Your task to perform on an android device: show emergency info Image 0: 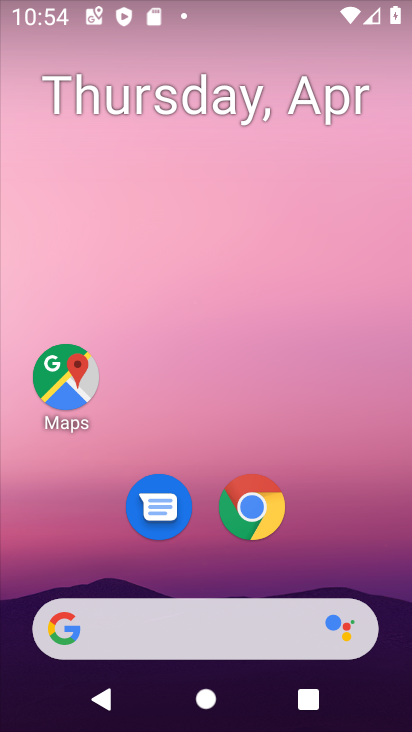
Step 0: drag from (162, 593) to (300, 58)
Your task to perform on an android device: show emergency info Image 1: 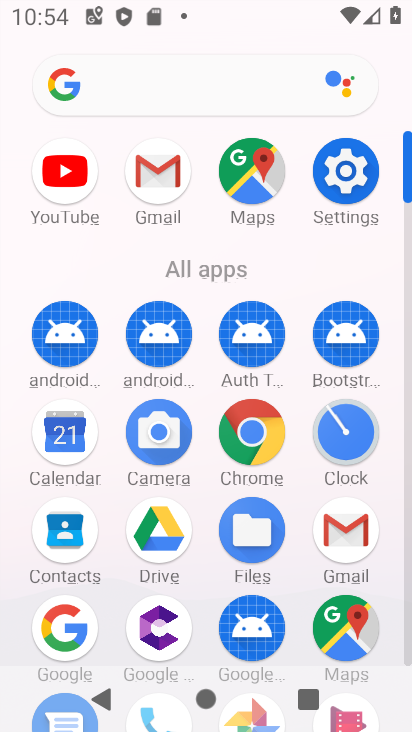
Step 1: click (349, 174)
Your task to perform on an android device: show emergency info Image 2: 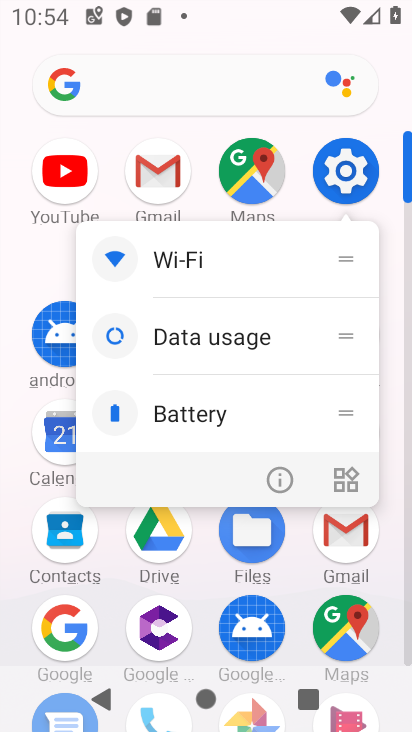
Step 2: click (336, 163)
Your task to perform on an android device: show emergency info Image 3: 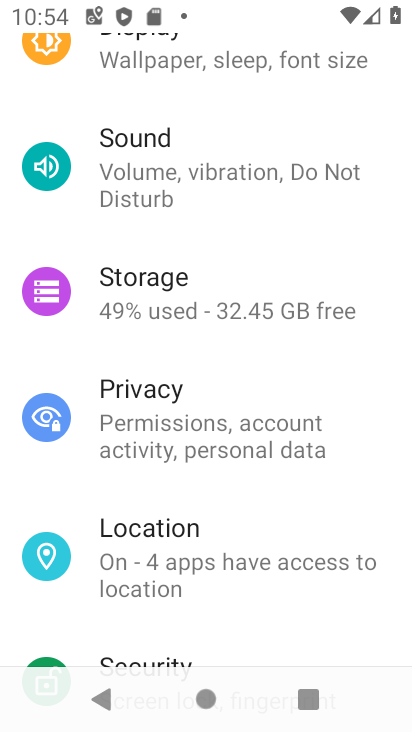
Step 3: drag from (153, 623) to (300, 126)
Your task to perform on an android device: show emergency info Image 4: 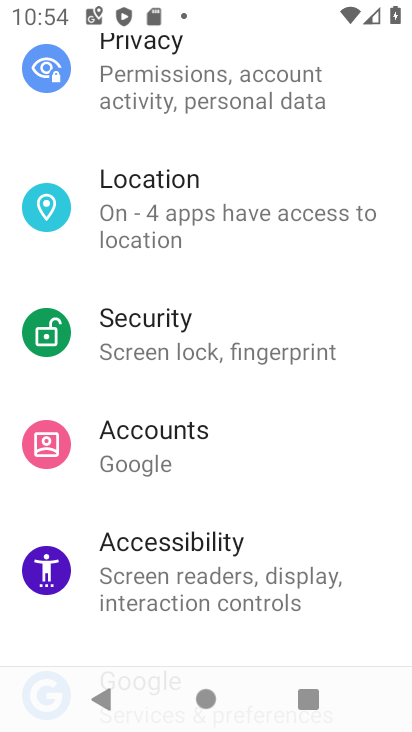
Step 4: drag from (141, 569) to (335, 107)
Your task to perform on an android device: show emergency info Image 5: 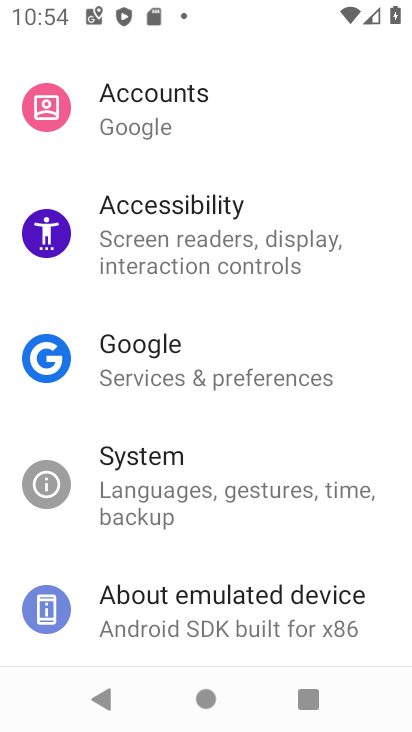
Step 5: drag from (153, 636) to (315, 67)
Your task to perform on an android device: show emergency info Image 6: 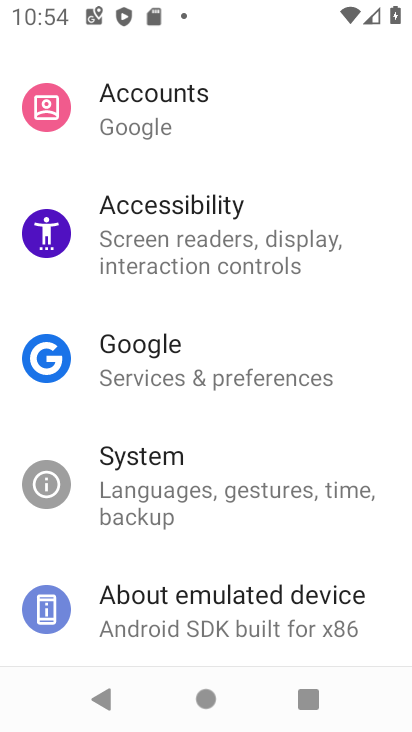
Step 6: click (255, 655)
Your task to perform on an android device: show emergency info Image 7: 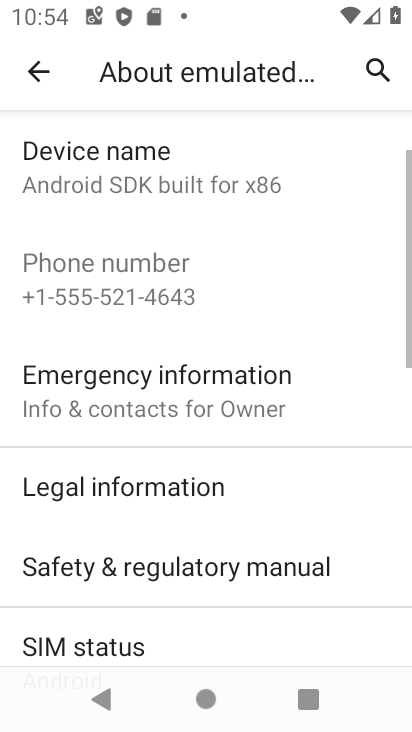
Step 7: click (122, 416)
Your task to perform on an android device: show emergency info Image 8: 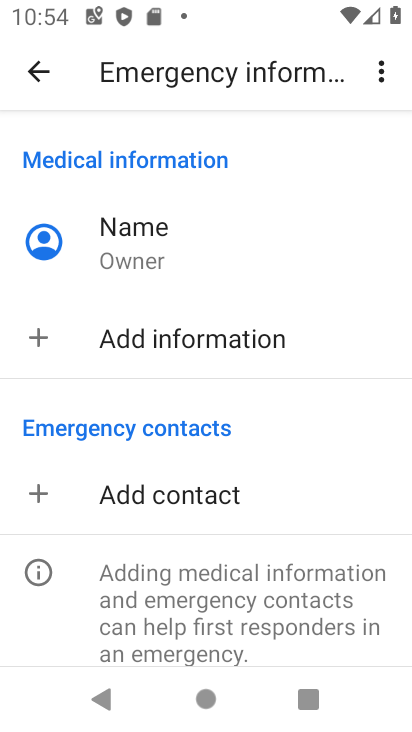
Step 8: task complete